Your task to perform on an android device: turn off airplane mode Image 0: 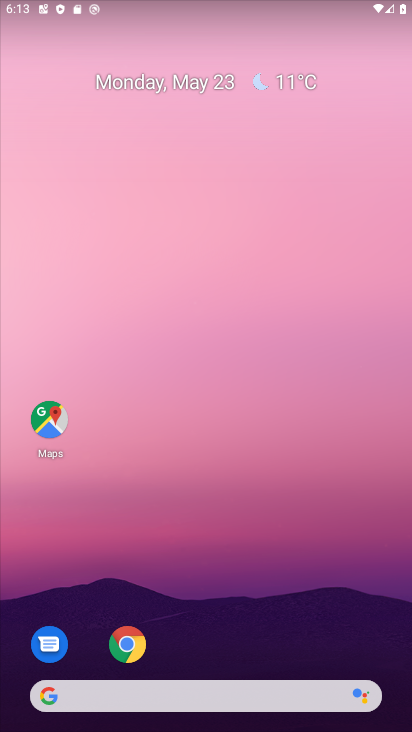
Step 0: drag from (205, 647) to (195, 284)
Your task to perform on an android device: turn off airplane mode Image 1: 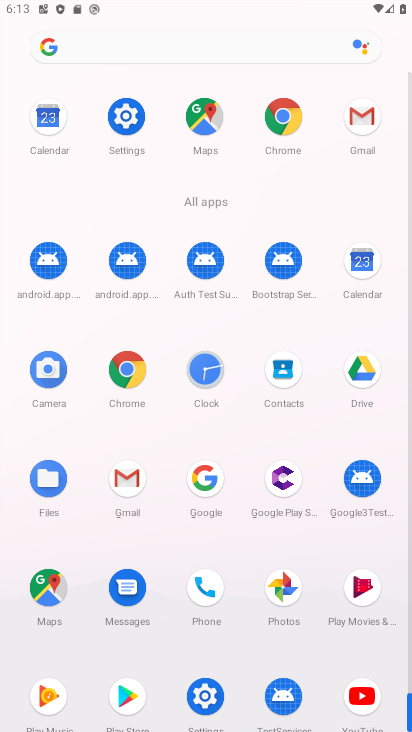
Step 1: click (119, 127)
Your task to perform on an android device: turn off airplane mode Image 2: 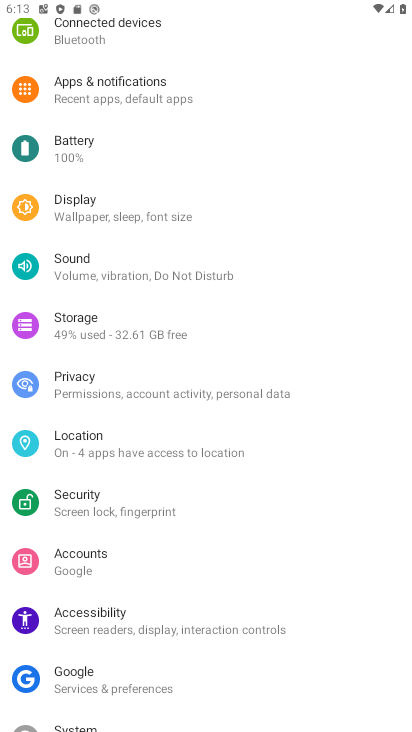
Step 2: drag from (133, 136) to (191, 483)
Your task to perform on an android device: turn off airplane mode Image 3: 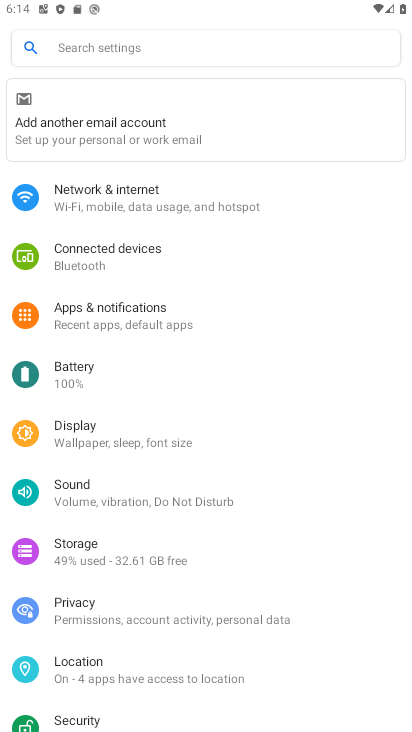
Step 3: click (172, 212)
Your task to perform on an android device: turn off airplane mode Image 4: 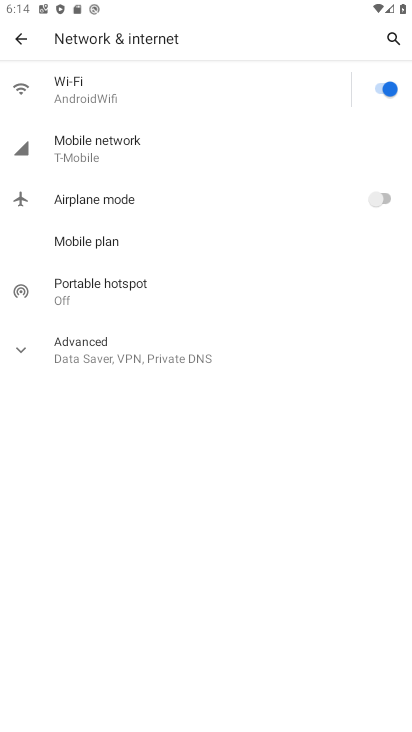
Step 4: task complete